Your task to perform on an android device: Show me the alarms in the clock app Image 0: 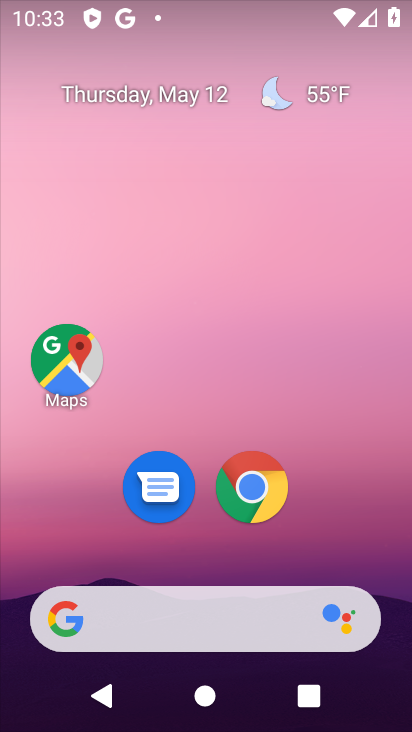
Step 0: drag from (379, 582) to (337, 19)
Your task to perform on an android device: Show me the alarms in the clock app Image 1: 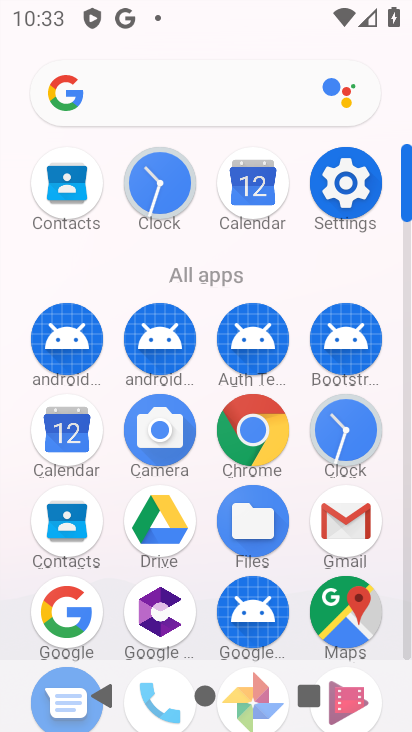
Step 1: click (165, 193)
Your task to perform on an android device: Show me the alarms in the clock app Image 2: 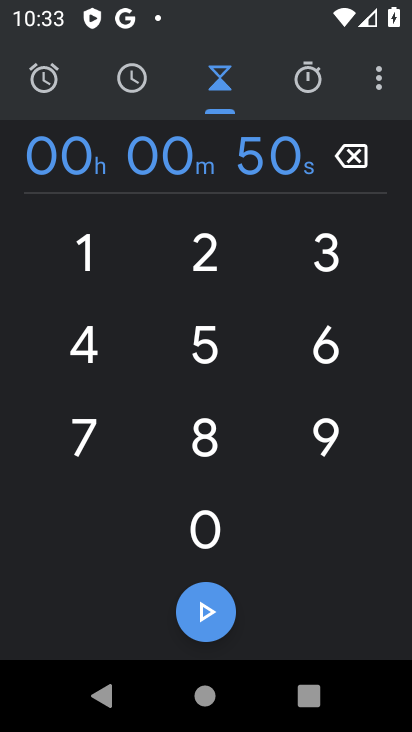
Step 2: click (48, 85)
Your task to perform on an android device: Show me the alarms in the clock app Image 3: 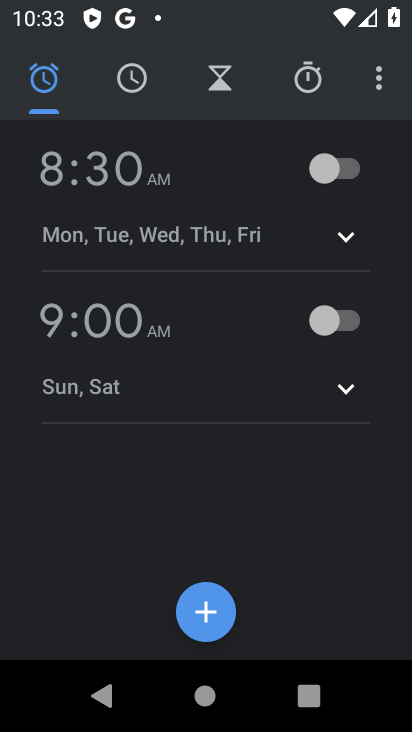
Step 3: task complete